Your task to perform on an android device: make emails show in primary in the gmail app Image 0: 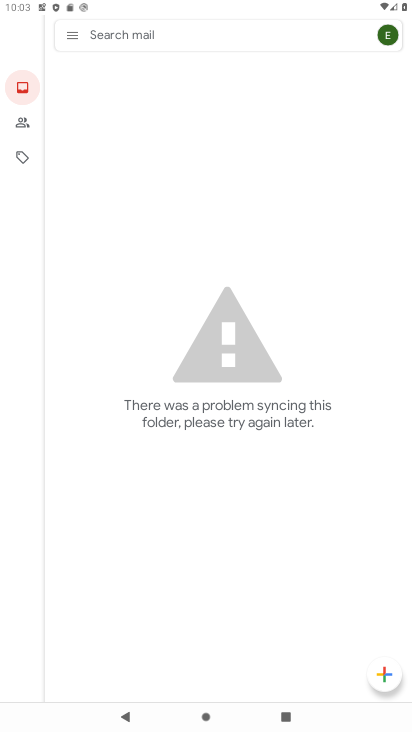
Step 0: press home button
Your task to perform on an android device: make emails show in primary in the gmail app Image 1: 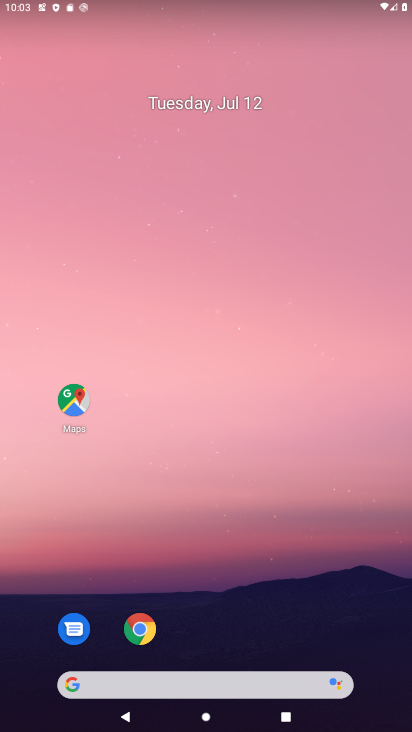
Step 1: drag from (328, 671) to (359, 137)
Your task to perform on an android device: make emails show in primary in the gmail app Image 2: 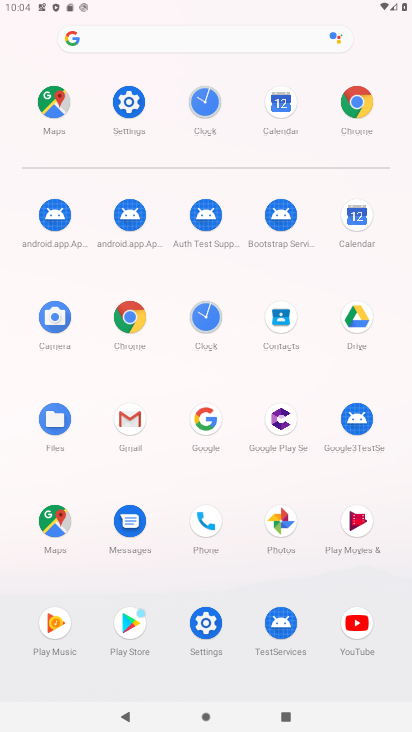
Step 2: click (130, 424)
Your task to perform on an android device: make emails show in primary in the gmail app Image 3: 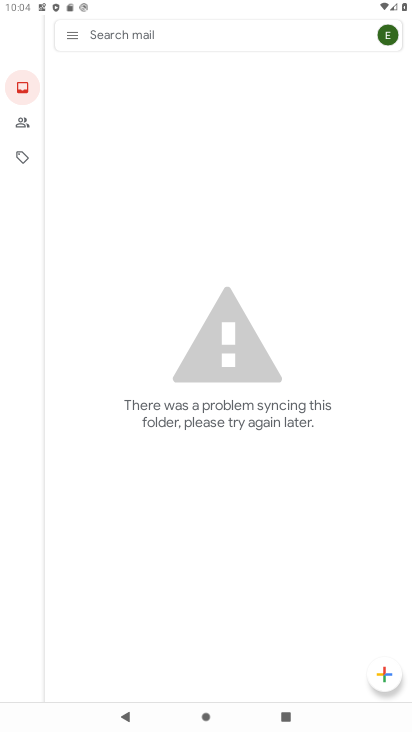
Step 3: click (70, 38)
Your task to perform on an android device: make emails show in primary in the gmail app Image 4: 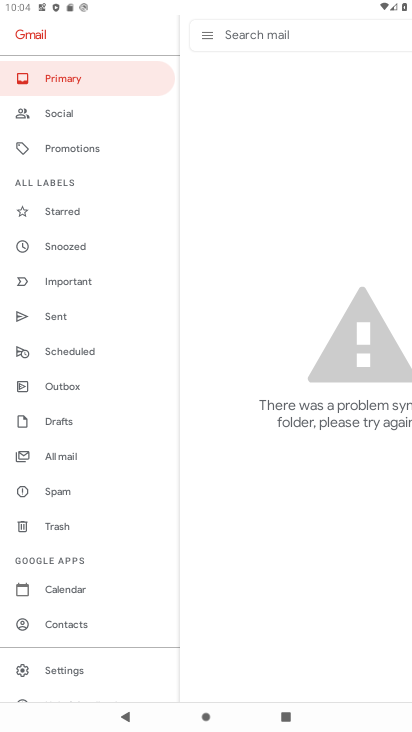
Step 4: task complete